Your task to perform on an android device: stop showing notifications on the lock screen Image 0: 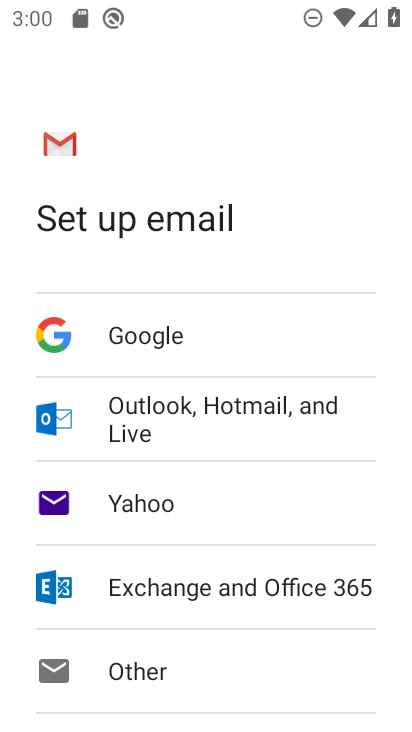
Step 0: press home button
Your task to perform on an android device: stop showing notifications on the lock screen Image 1: 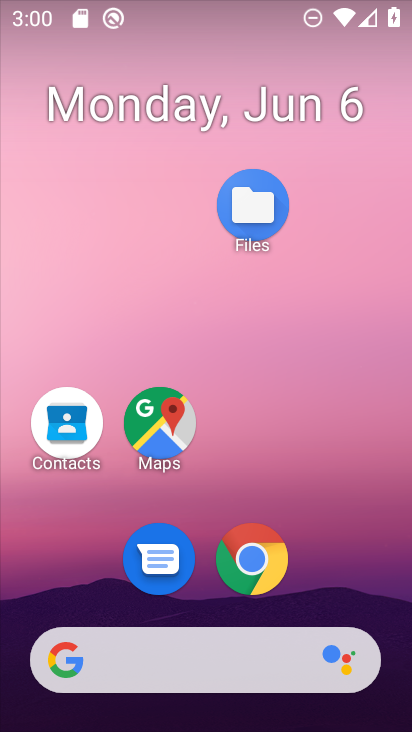
Step 1: drag from (182, 594) to (109, 6)
Your task to perform on an android device: stop showing notifications on the lock screen Image 2: 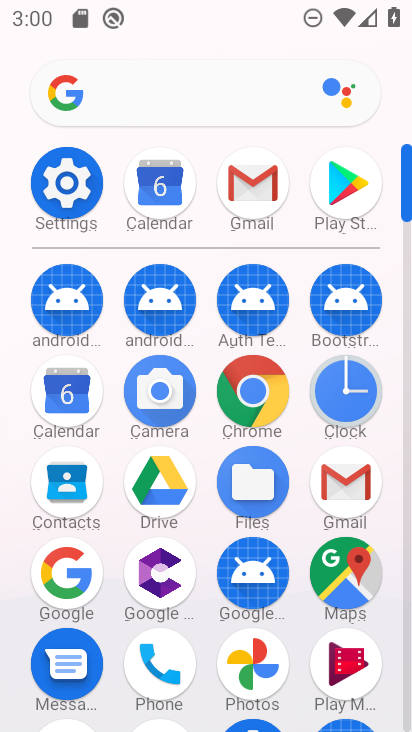
Step 2: click (67, 196)
Your task to perform on an android device: stop showing notifications on the lock screen Image 3: 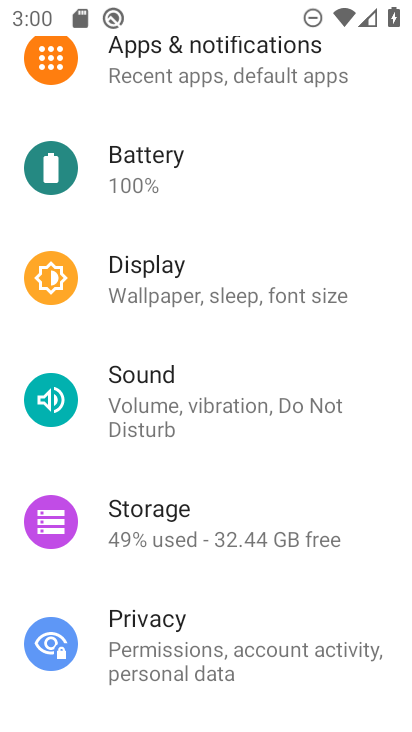
Step 3: drag from (156, 266) to (182, 634)
Your task to perform on an android device: stop showing notifications on the lock screen Image 4: 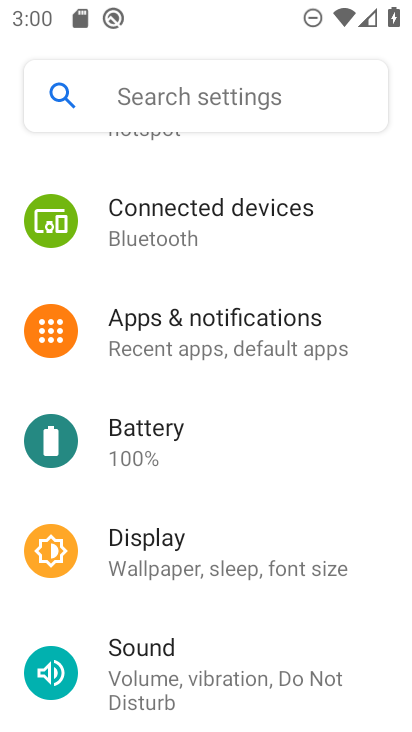
Step 4: click (256, 343)
Your task to perform on an android device: stop showing notifications on the lock screen Image 5: 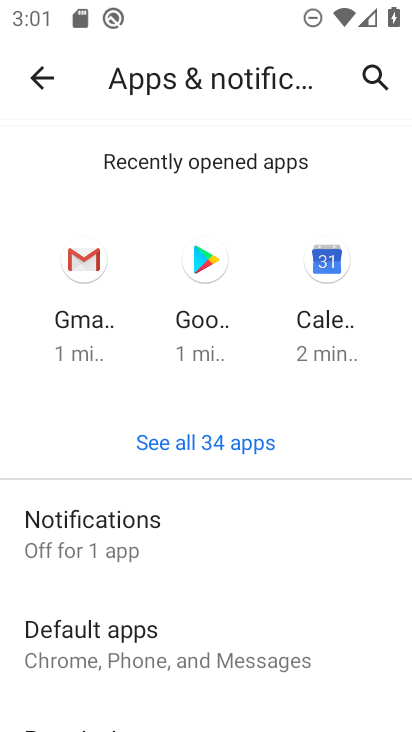
Step 5: click (236, 531)
Your task to perform on an android device: stop showing notifications on the lock screen Image 6: 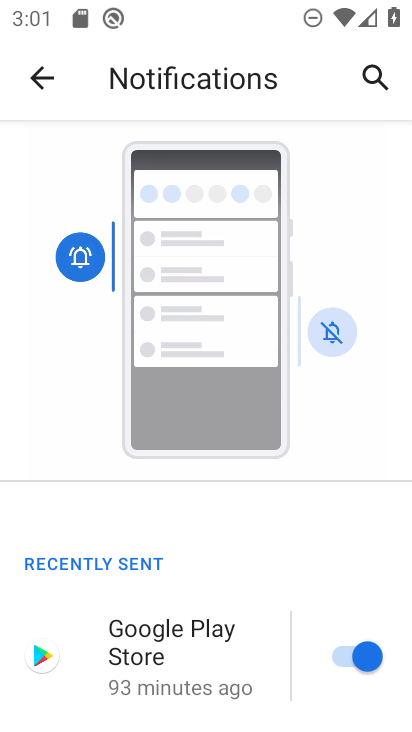
Step 6: drag from (168, 598) to (213, 76)
Your task to perform on an android device: stop showing notifications on the lock screen Image 7: 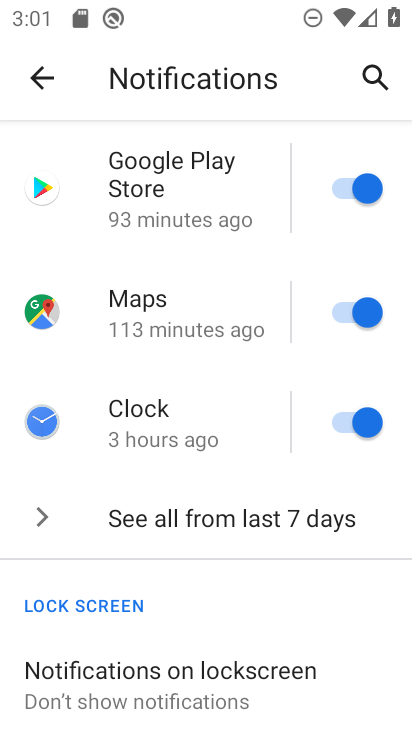
Step 7: drag from (199, 544) to (138, 101)
Your task to perform on an android device: stop showing notifications on the lock screen Image 8: 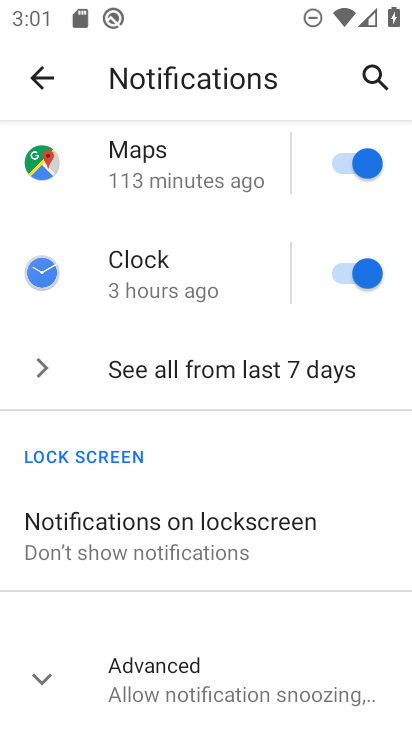
Step 8: click (172, 671)
Your task to perform on an android device: stop showing notifications on the lock screen Image 9: 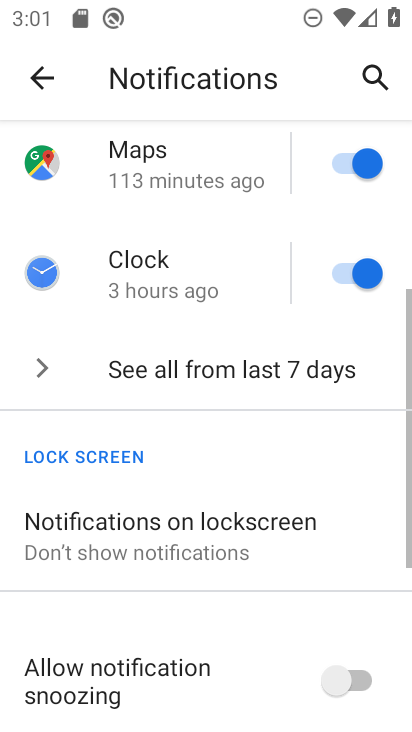
Step 9: click (165, 536)
Your task to perform on an android device: stop showing notifications on the lock screen Image 10: 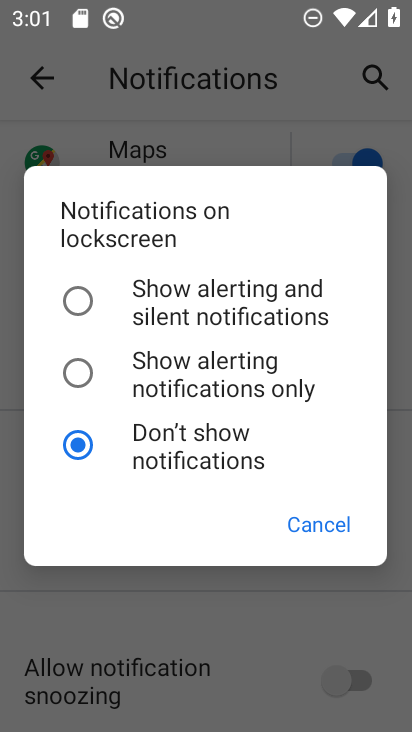
Step 10: task complete